Your task to perform on an android device: Open accessibility settings Image 0: 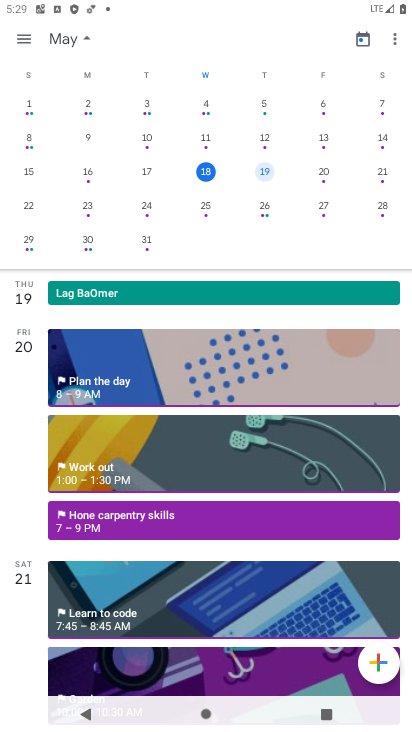
Step 0: press home button
Your task to perform on an android device: Open accessibility settings Image 1: 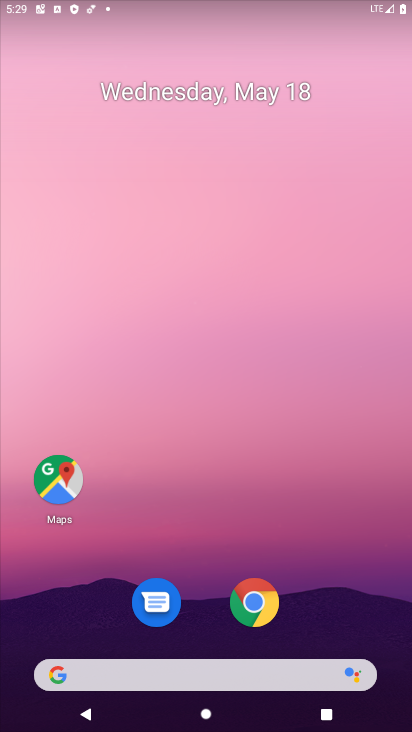
Step 1: drag from (212, 644) to (250, 33)
Your task to perform on an android device: Open accessibility settings Image 2: 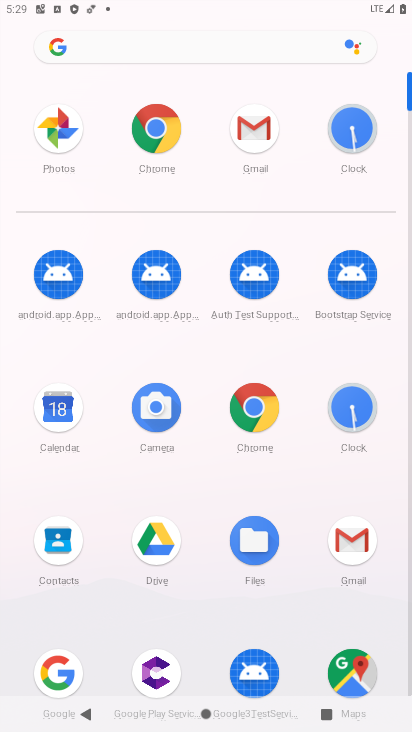
Step 2: drag from (294, 619) to (314, 138)
Your task to perform on an android device: Open accessibility settings Image 3: 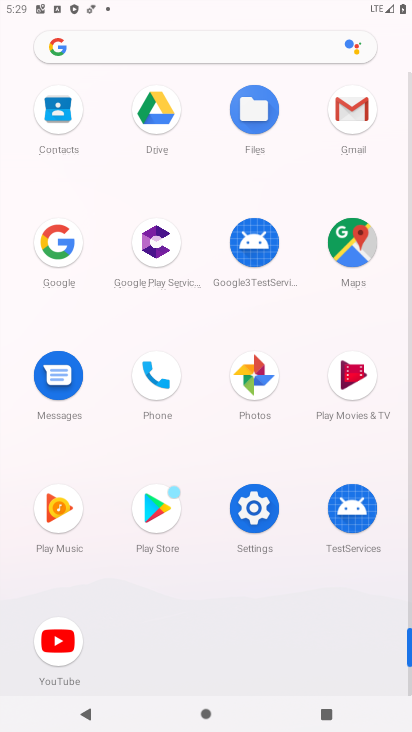
Step 3: click (245, 521)
Your task to perform on an android device: Open accessibility settings Image 4: 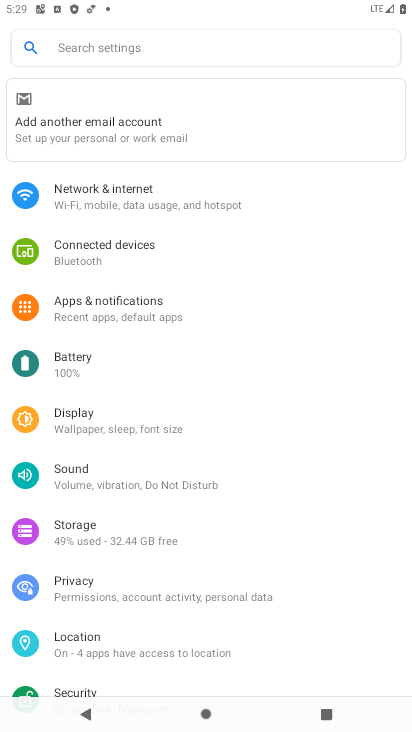
Step 4: drag from (193, 634) to (246, 171)
Your task to perform on an android device: Open accessibility settings Image 5: 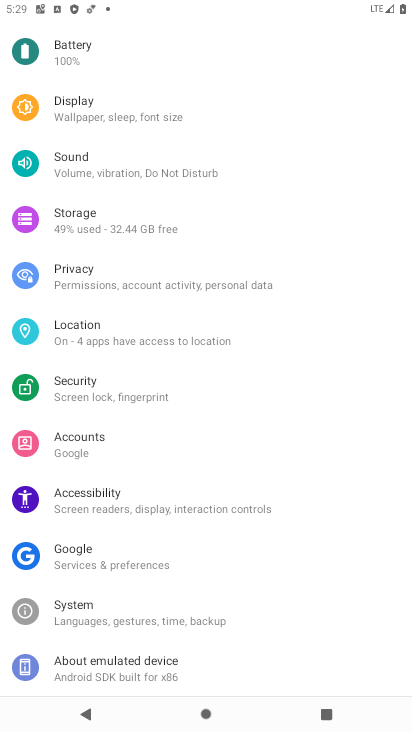
Step 5: click (104, 510)
Your task to perform on an android device: Open accessibility settings Image 6: 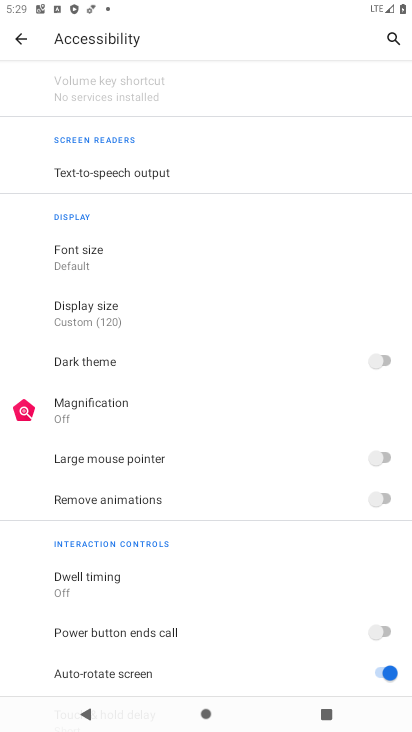
Step 6: task complete